Your task to perform on an android device: Open Chrome and go to the settings page Image 0: 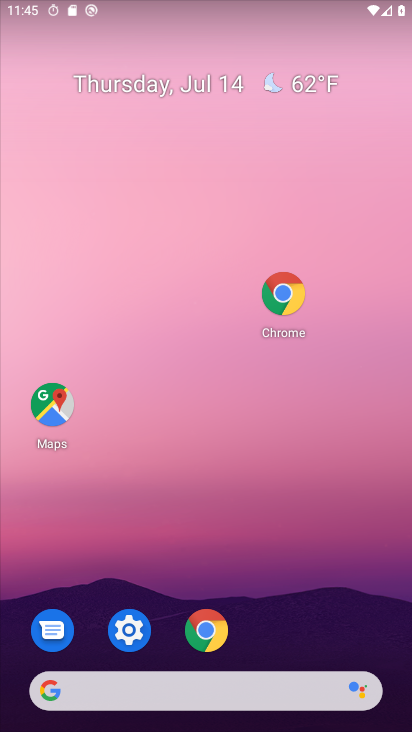
Step 0: click (172, 16)
Your task to perform on an android device: Open Chrome and go to the settings page Image 1: 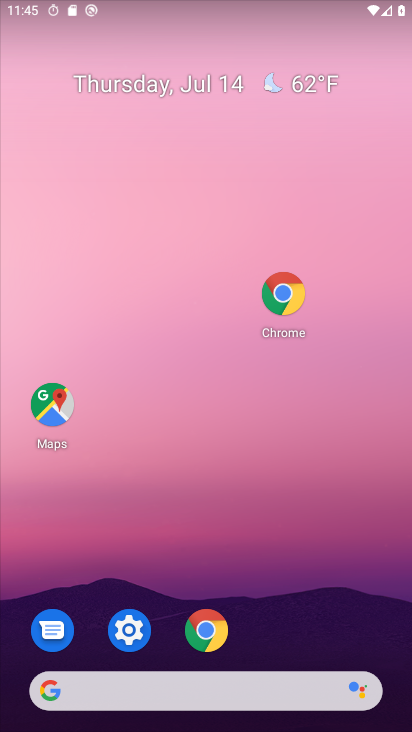
Step 1: click (222, 20)
Your task to perform on an android device: Open Chrome and go to the settings page Image 2: 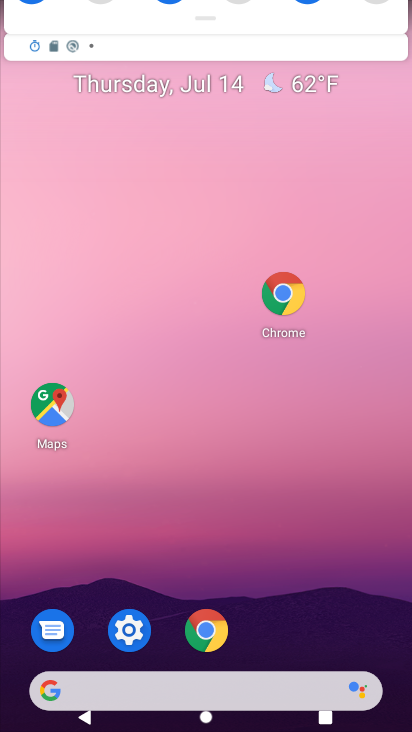
Step 2: drag from (197, 362) to (202, 9)
Your task to perform on an android device: Open Chrome and go to the settings page Image 3: 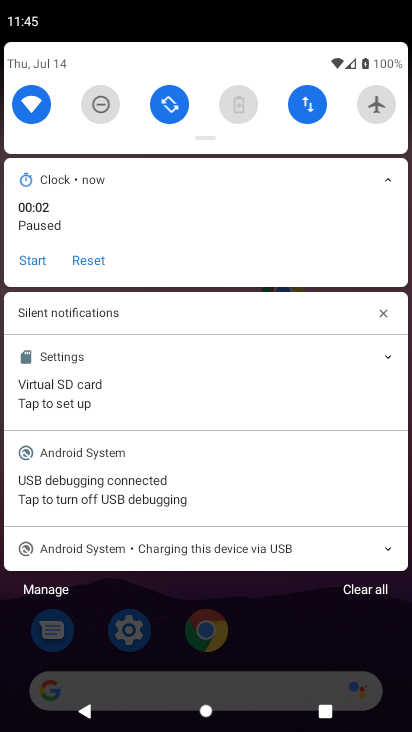
Step 3: press back button
Your task to perform on an android device: Open Chrome and go to the settings page Image 4: 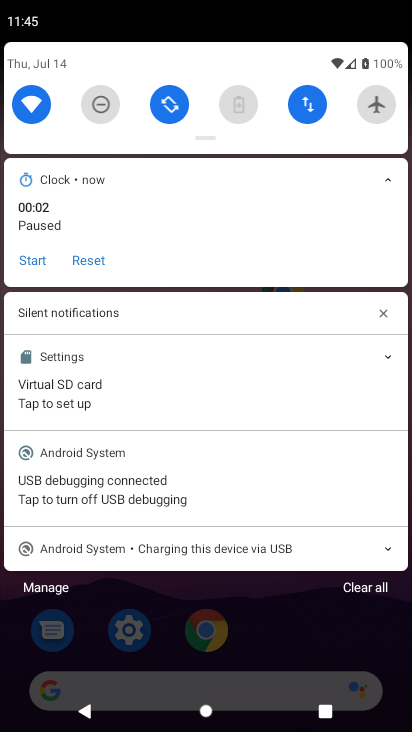
Step 4: press back button
Your task to perform on an android device: Open Chrome and go to the settings page Image 5: 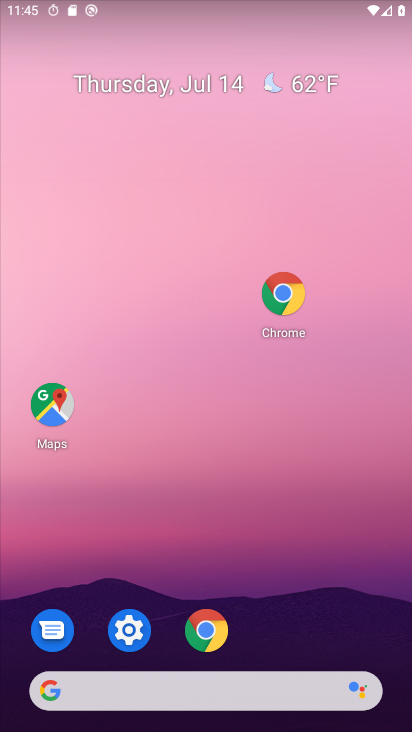
Step 5: press back button
Your task to perform on an android device: Open Chrome and go to the settings page Image 6: 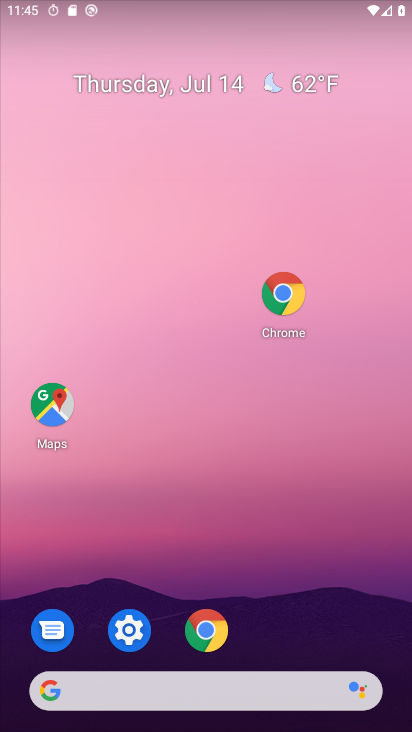
Step 6: drag from (170, 342) to (127, 41)
Your task to perform on an android device: Open Chrome and go to the settings page Image 7: 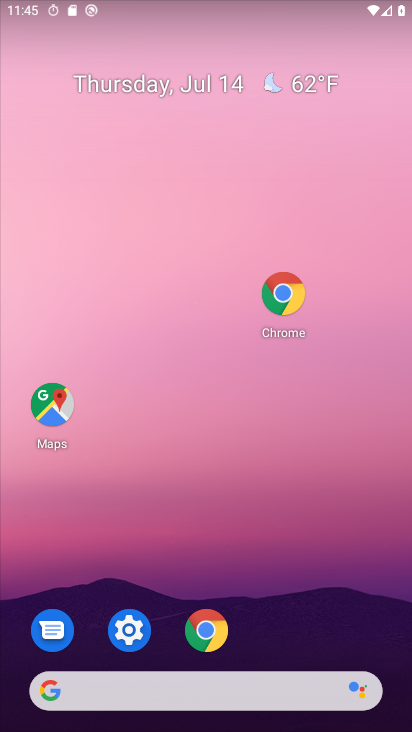
Step 7: drag from (262, 647) to (160, 193)
Your task to perform on an android device: Open Chrome and go to the settings page Image 8: 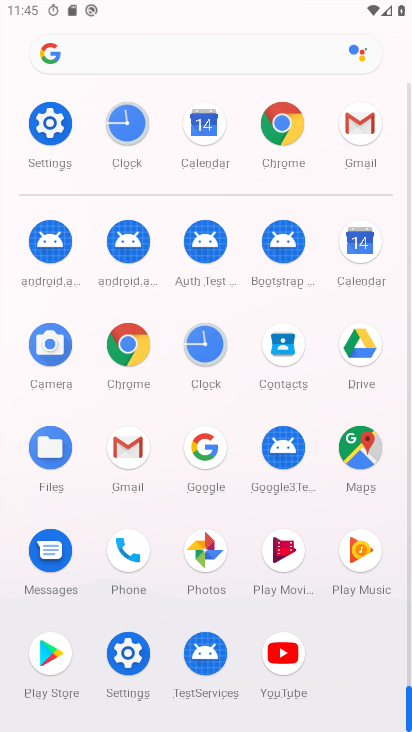
Step 8: click (63, 123)
Your task to perform on an android device: Open Chrome and go to the settings page Image 9: 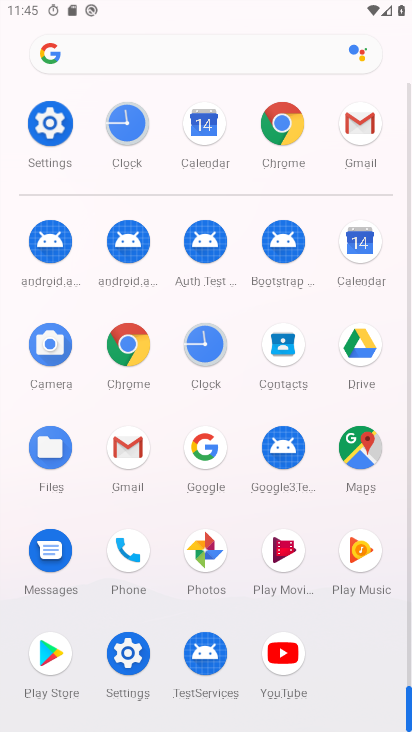
Step 9: click (63, 123)
Your task to perform on an android device: Open Chrome and go to the settings page Image 10: 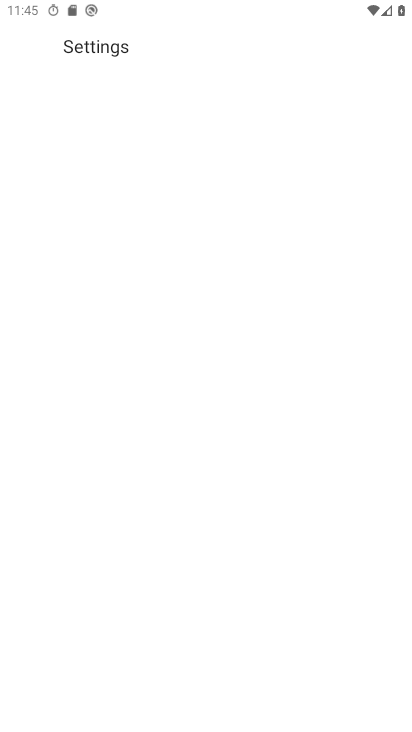
Step 10: click (63, 122)
Your task to perform on an android device: Open Chrome and go to the settings page Image 11: 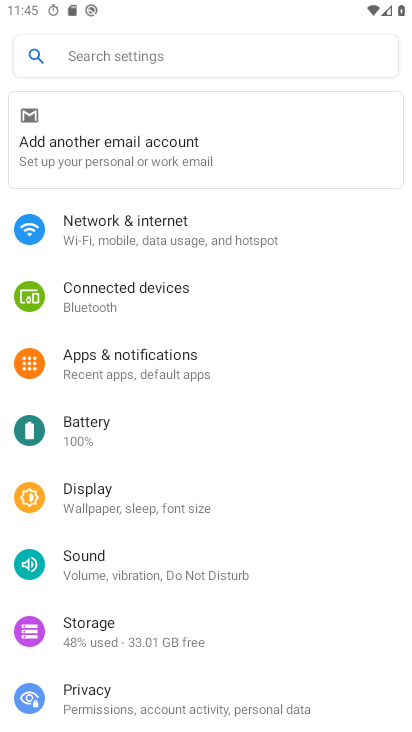
Step 11: press back button
Your task to perform on an android device: Open Chrome and go to the settings page Image 12: 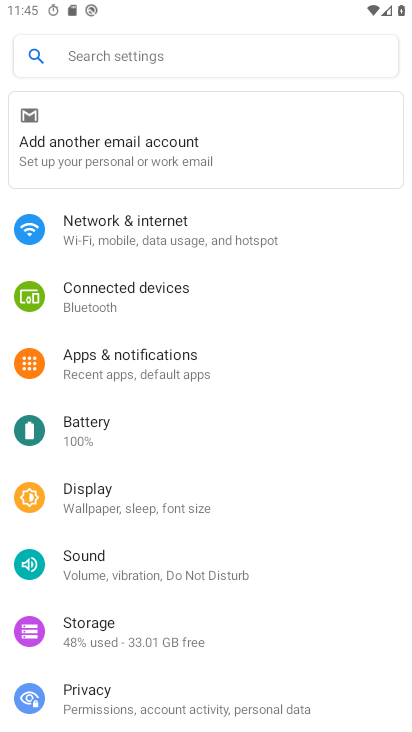
Step 12: press back button
Your task to perform on an android device: Open Chrome and go to the settings page Image 13: 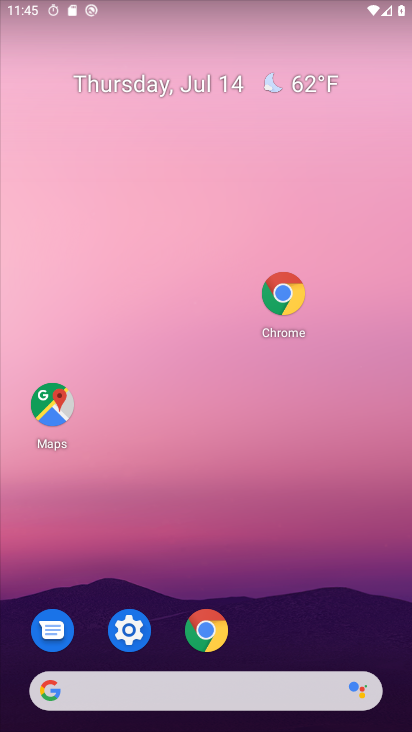
Step 13: click (109, 113)
Your task to perform on an android device: Open Chrome and go to the settings page Image 14: 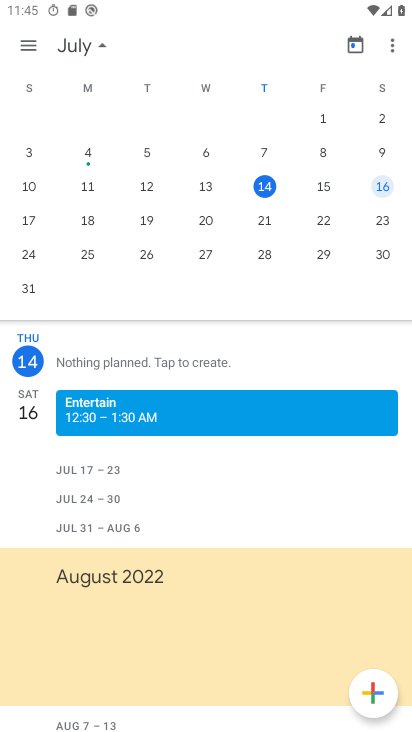
Step 14: press home button
Your task to perform on an android device: Open Chrome and go to the settings page Image 15: 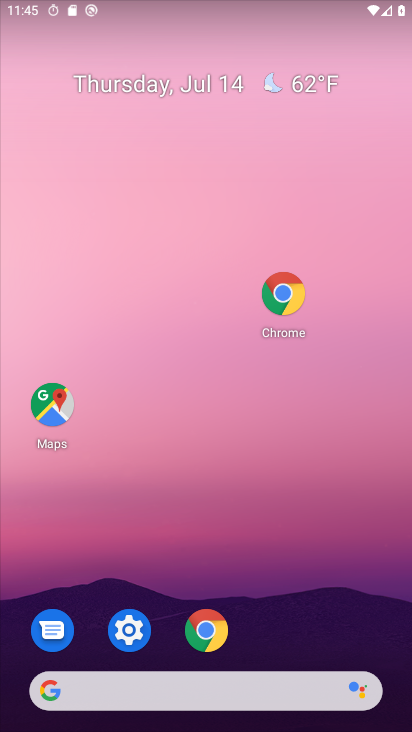
Step 15: drag from (271, 661) to (243, 134)
Your task to perform on an android device: Open Chrome and go to the settings page Image 16: 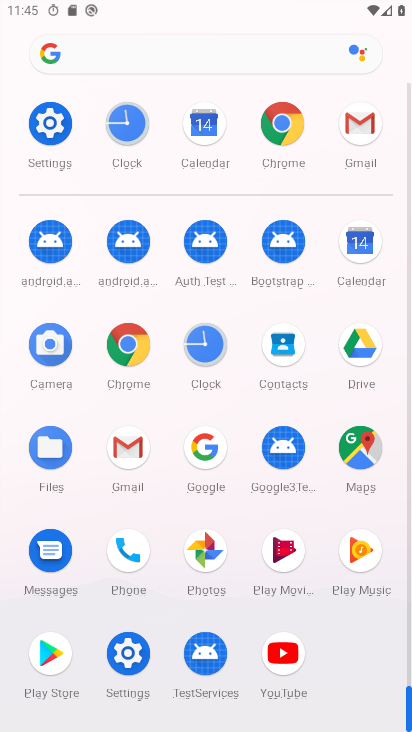
Step 16: click (280, 140)
Your task to perform on an android device: Open Chrome and go to the settings page Image 17: 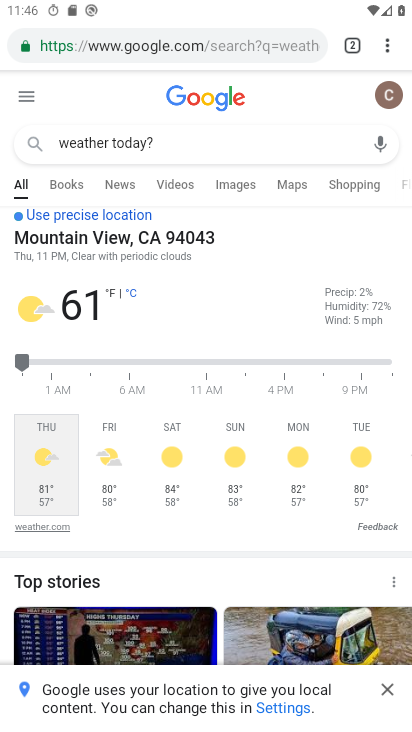
Step 17: drag from (385, 46) to (214, 560)
Your task to perform on an android device: Open Chrome and go to the settings page Image 18: 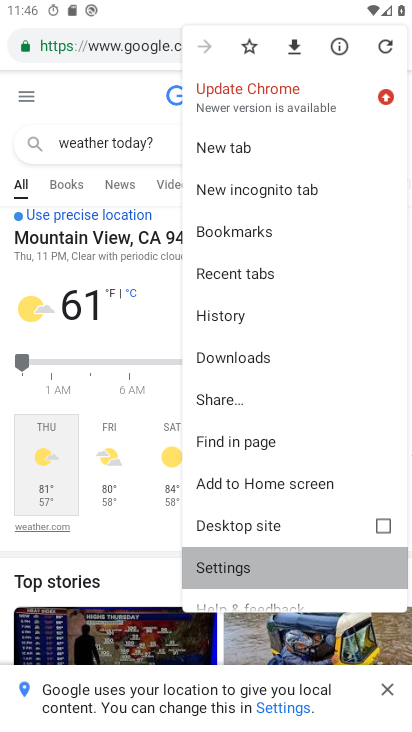
Step 18: click (212, 579)
Your task to perform on an android device: Open Chrome and go to the settings page Image 19: 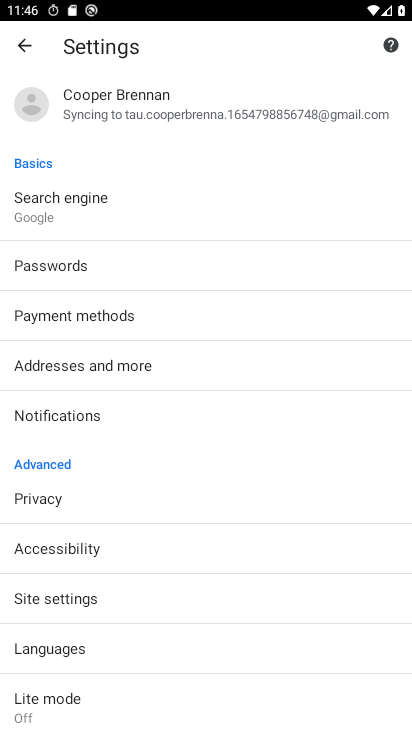
Step 19: task complete